Your task to perform on an android device: Show me my notifications Image 0: 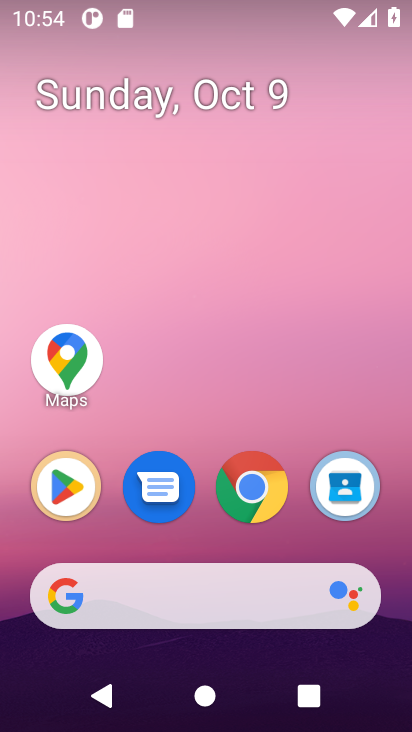
Step 0: drag from (214, 451) to (209, 224)
Your task to perform on an android device: Show me my notifications Image 1: 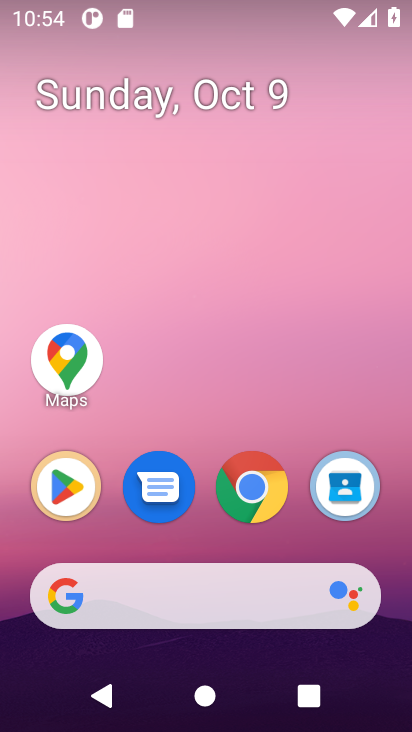
Step 1: task complete